Your task to perform on an android device: Do I have any events this weekend? Image 0: 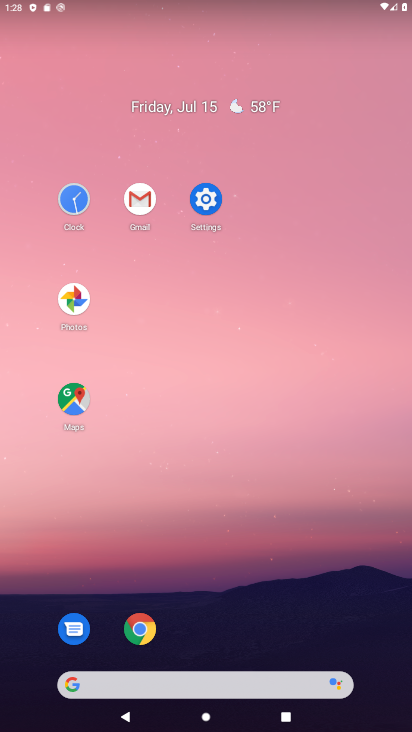
Step 0: drag from (271, 585) to (314, 160)
Your task to perform on an android device: Do I have any events this weekend? Image 1: 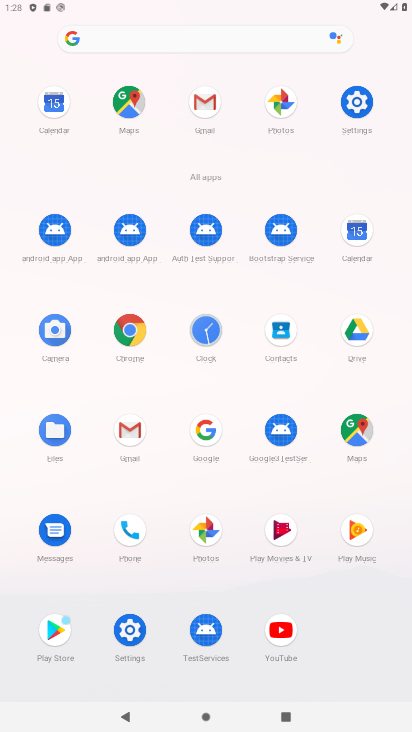
Step 1: drag from (352, 235) to (176, 281)
Your task to perform on an android device: Do I have any events this weekend? Image 2: 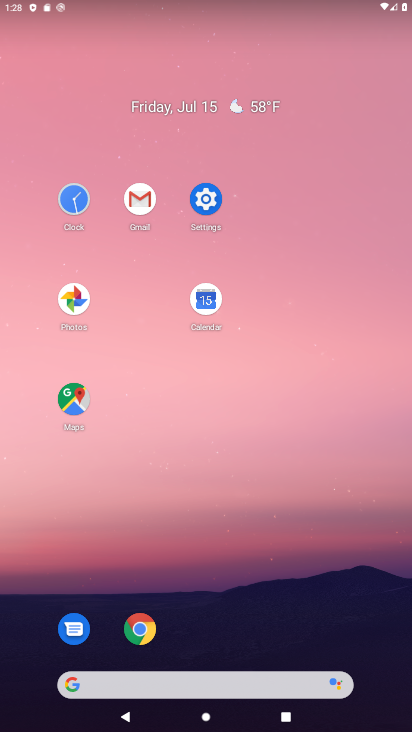
Step 2: click (204, 306)
Your task to perform on an android device: Do I have any events this weekend? Image 3: 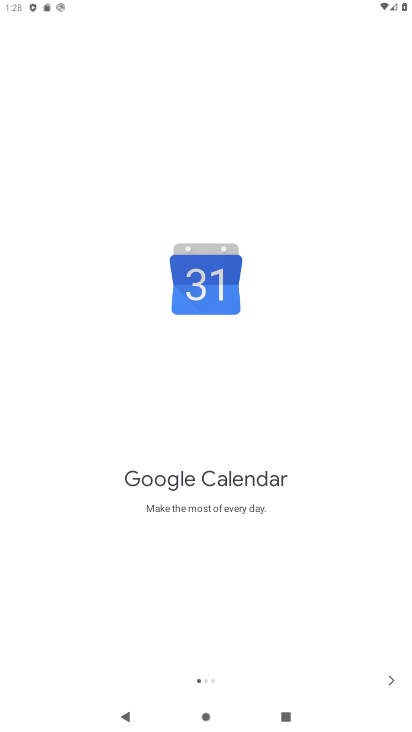
Step 3: click (391, 682)
Your task to perform on an android device: Do I have any events this weekend? Image 4: 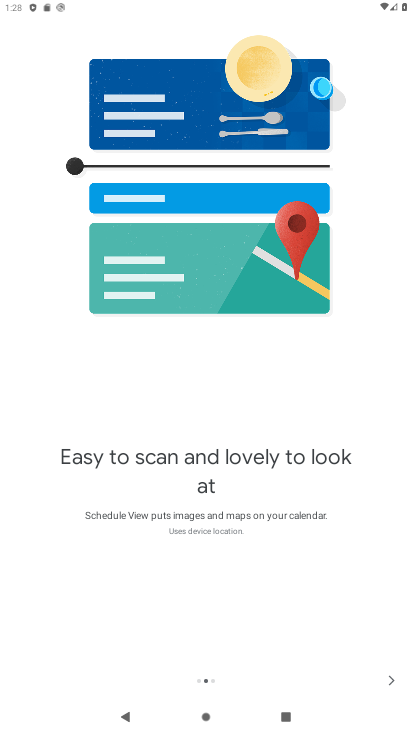
Step 4: click (398, 681)
Your task to perform on an android device: Do I have any events this weekend? Image 5: 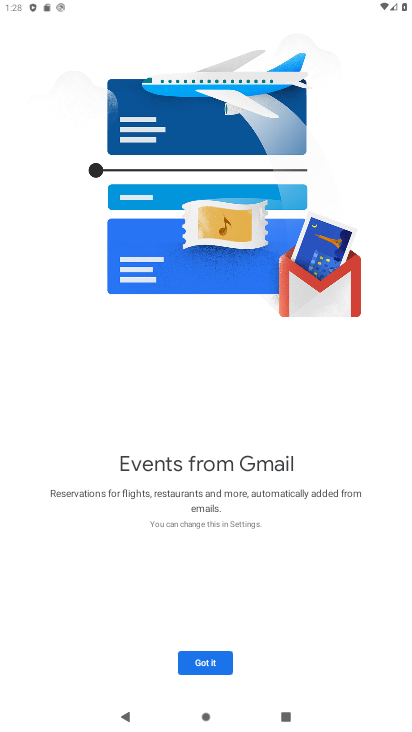
Step 5: click (401, 681)
Your task to perform on an android device: Do I have any events this weekend? Image 6: 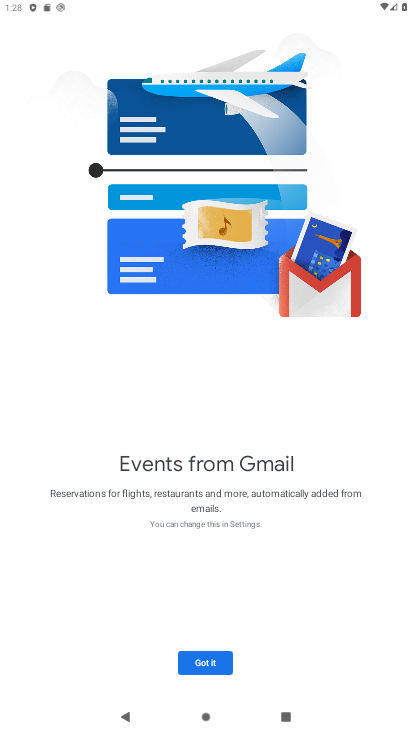
Step 6: click (215, 665)
Your task to perform on an android device: Do I have any events this weekend? Image 7: 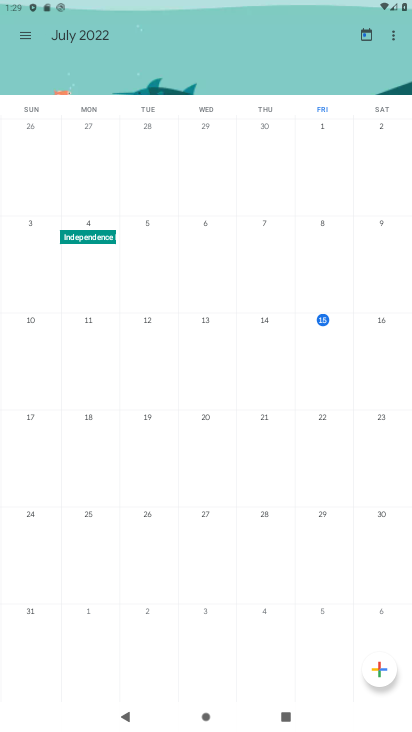
Step 7: click (22, 40)
Your task to perform on an android device: Do I have any events this weekend? Image 8: 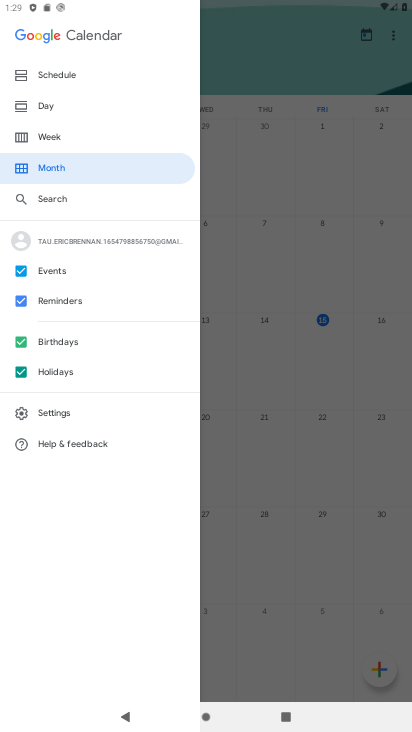
Step 8: click (77, 130)
Your task to perform on an android device: Do I have any events this weekend? Image 9: 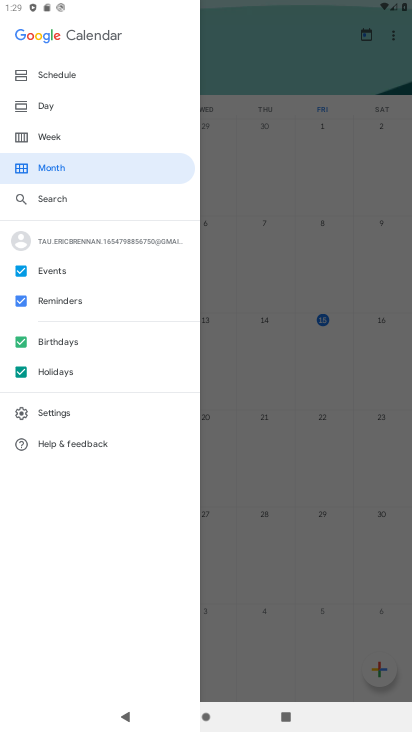
Step 9: click (51, 130)
Your task to perform on an android device: Do I have any events this weekend? Image 10: 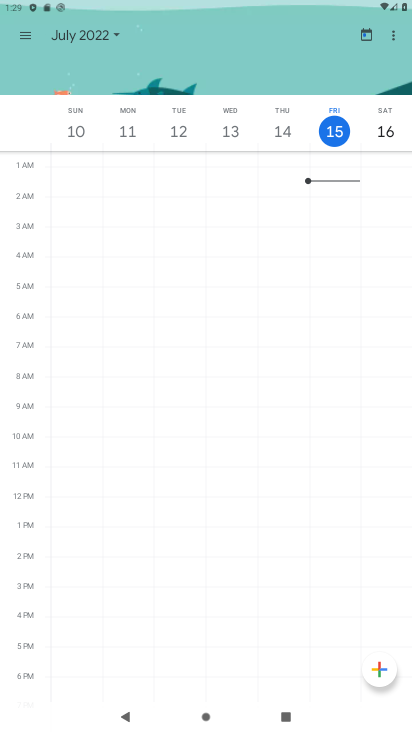
Step 10: click (12, 32)
Your task to perform on an android device: Do I have any events this weekend? Image 11: 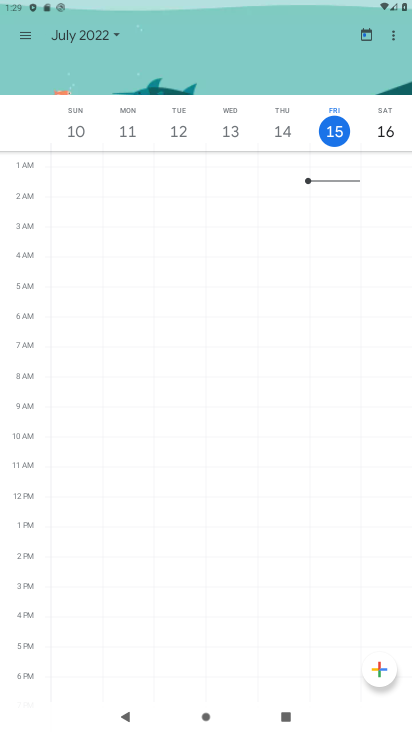
Step 11: click (31, 31)
Your task to perform on an android device: Do I have any events this weekend? Image 12: 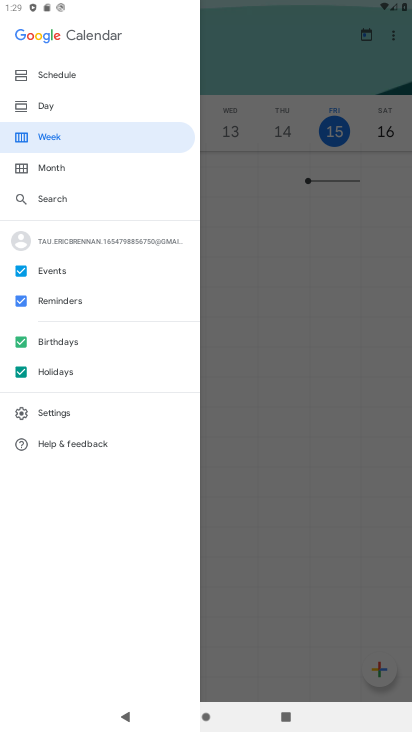
Step 12: click (340, 76)
Your task to perform on an android device: Do I have any events this weekend? Image 13: 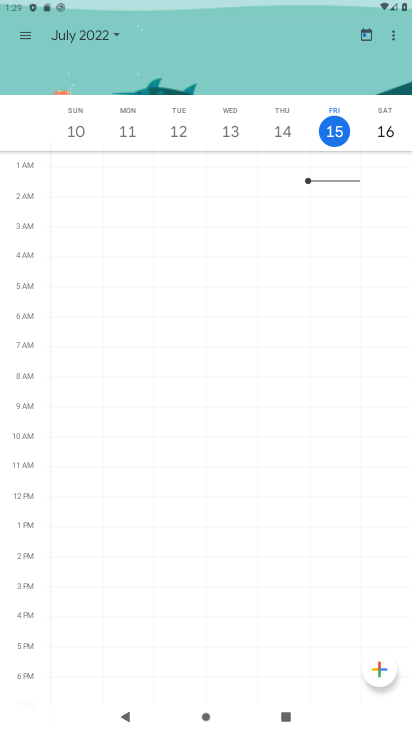
Step 13: task complete